Your task to perform on an android device: turn on bluetooth scan Image 0: 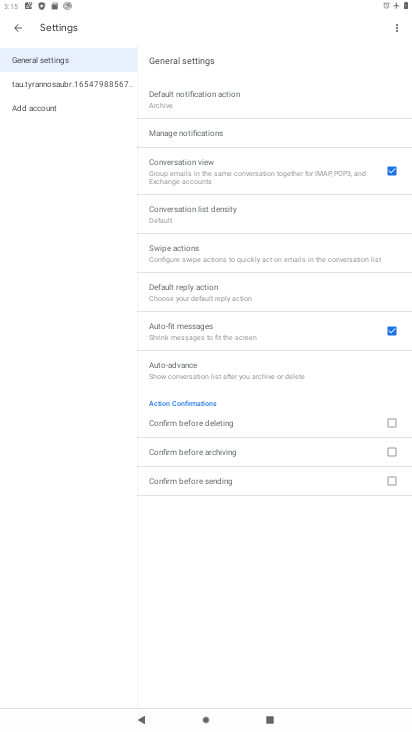
Step 0: press home button
Your task to perform on an android device: turn on bluetooth scan Image 1: 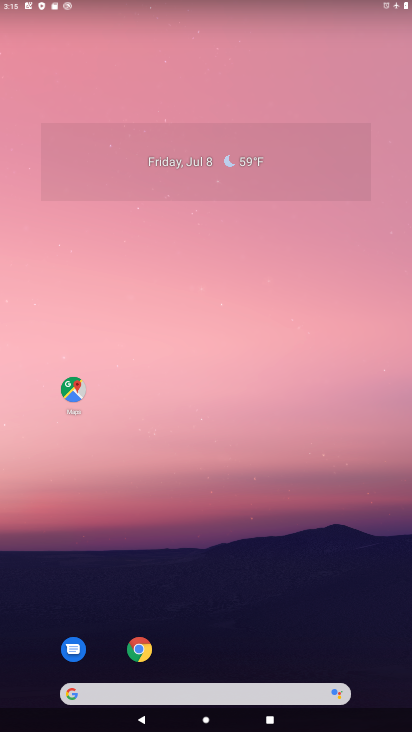
Step 1: drag from (349, 594) to (300, 148)
Your task to perform on an android device: turn on bluetooth scan Image 2: 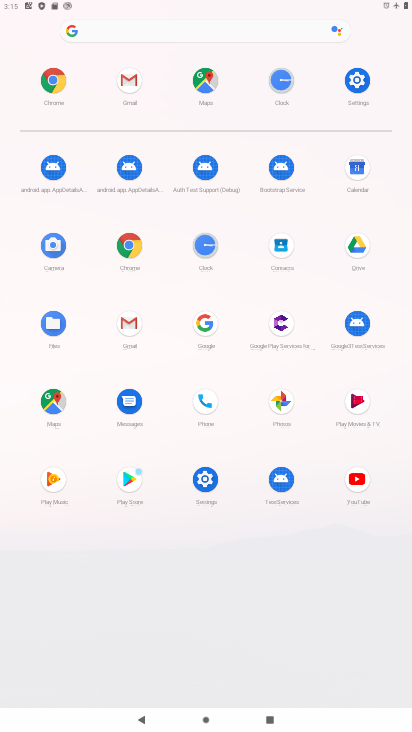
Step 2: click (360, 78)
Your task to perform on an android device: turn on bluetooth scan Image 3: 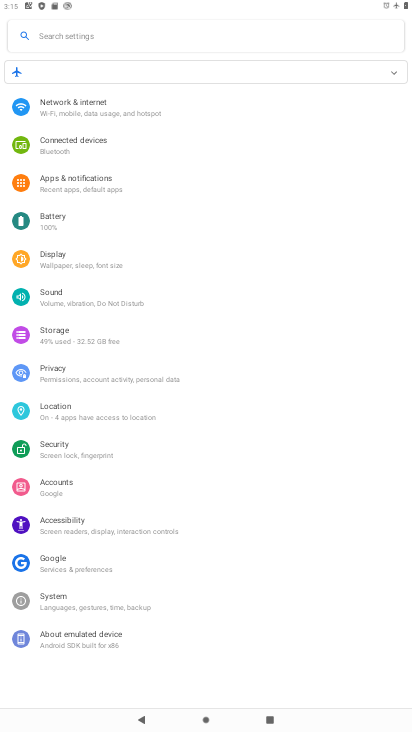
Step 3: click (80, 415)
Your task to perform on an android device: turn on bluetooth scan Image 4: 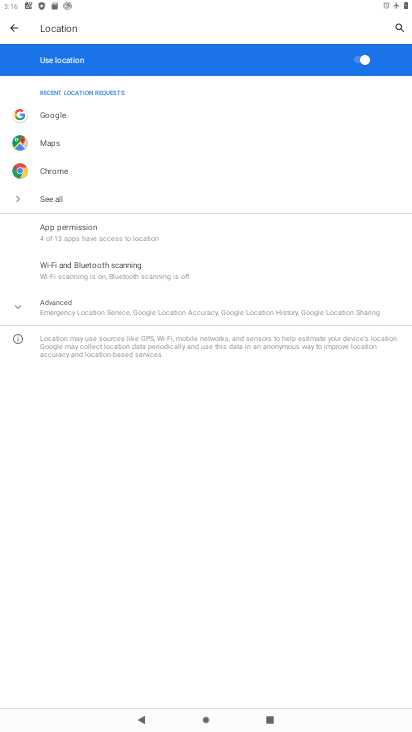
Step 4: click (123, 272)
Your task to perform on an android device: turn on bluetooth scan Image 5: 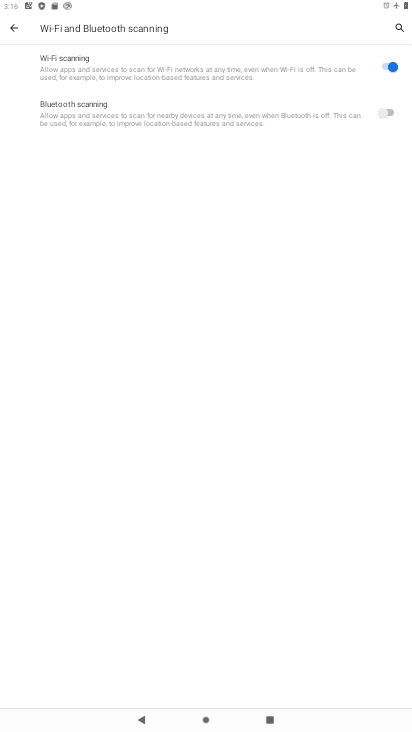
Step 5: click (206, 118)
Your task to perform on an android device: turn on bluetooth scan Image 6: 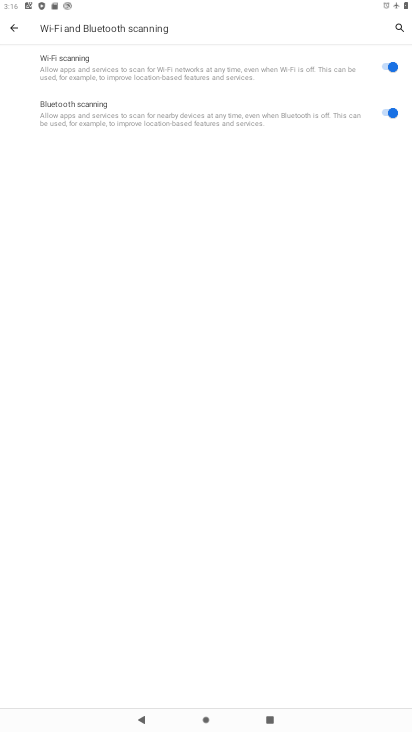
Step 6: task complete